Your task to perform on an android device: refresh tabs in the chrome app Image 0: 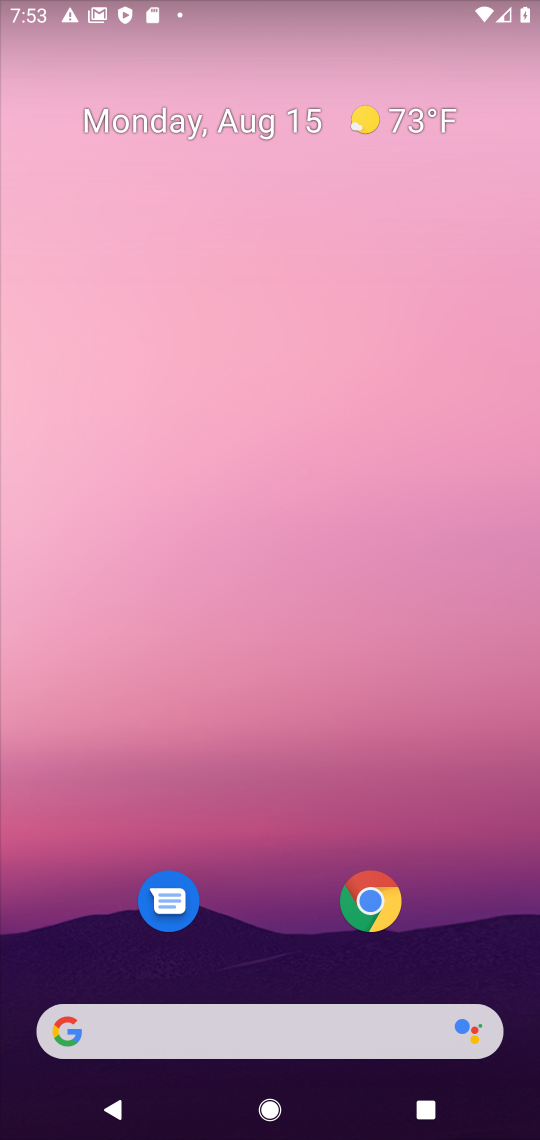
Step 0: click (354, 906)
Your task to perform on an android device: refresh tabs in the chrome app Image 1: 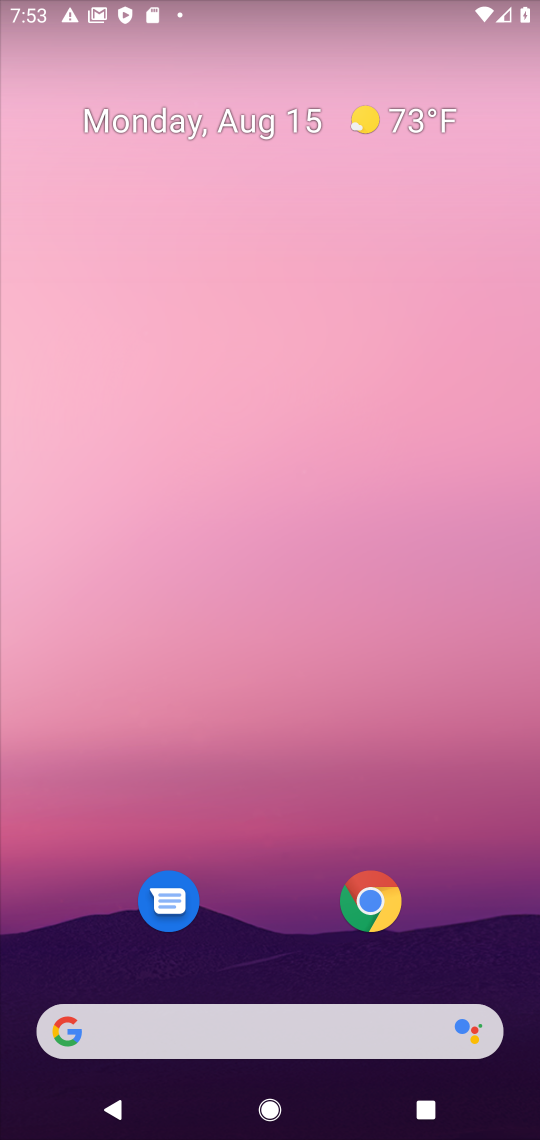
Step 1: click (377, 900)
Your task to perform on an android device: refresh tabs in the chrome app Image 2: 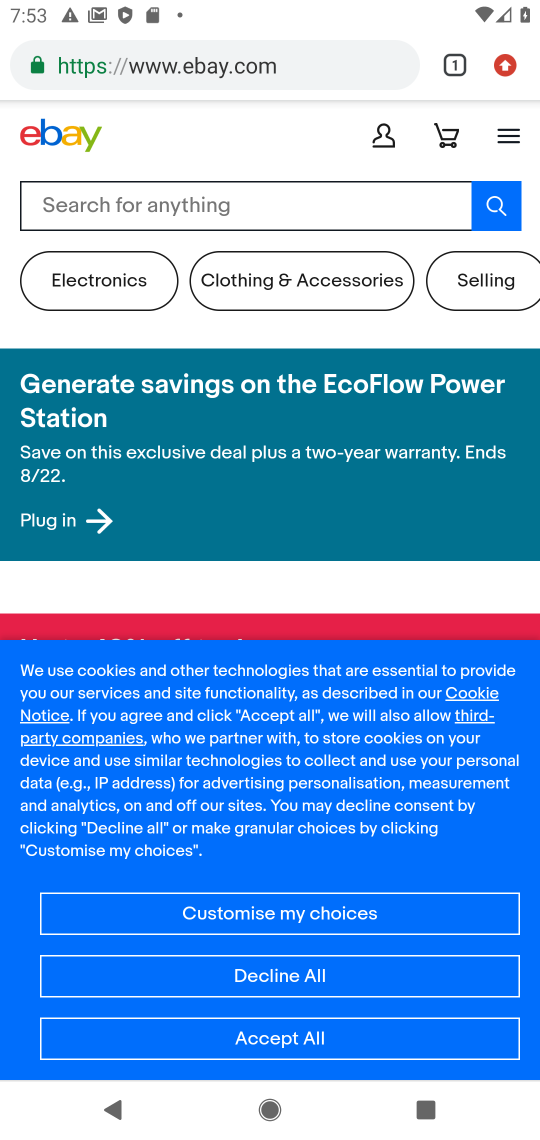
Step 2: click (505, 67)
Your task to perform on an android device: refresh tabs in the chrome app Image 3: 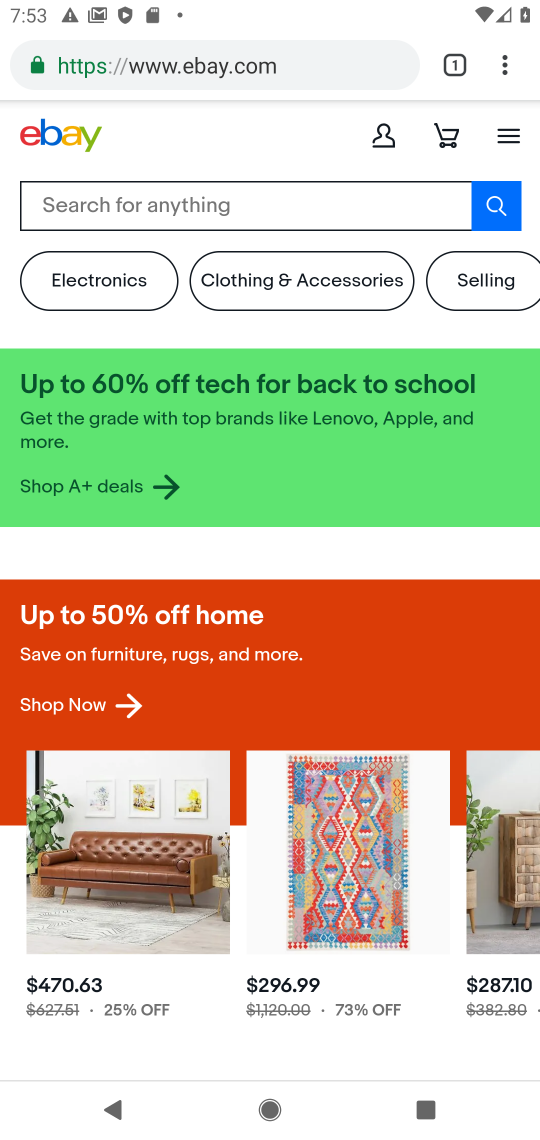
Step 3: task complete